Your task to perform on an android device: turn on bluetooth scan Image 0: 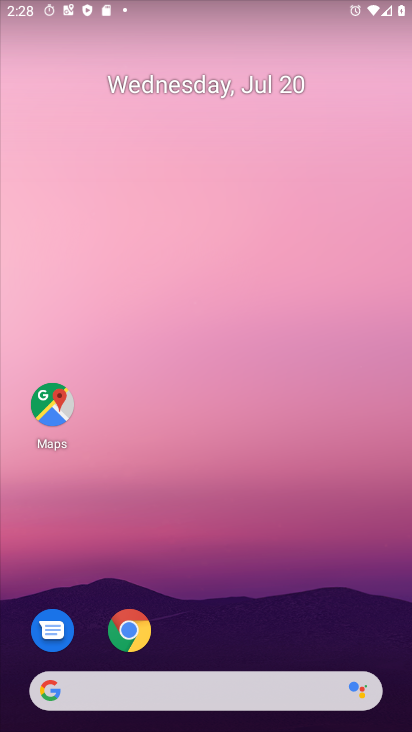
Step 0: press home button
Your task to perform on an android device: turn on bluetooth scan Image 1: 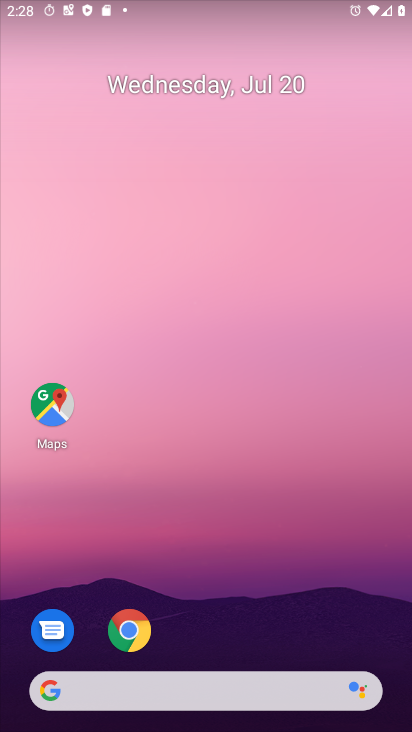
Step 1: drag from (205, 697) to (341, 106)
Your task to perform on an android device: turn on bluetooth scan Image 2: 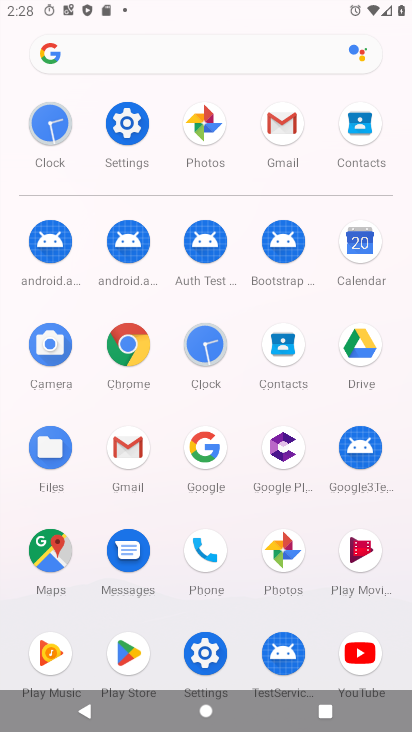
Step 2: click (128, 138)
Your task to perform on an android device: turn on bluetooth scan Image 3: 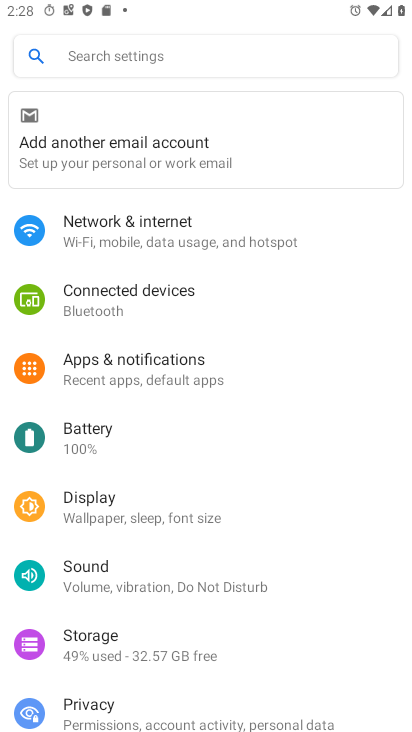
Step 3: drag from (312, 572) to (368, 225)
Your task to perform on an android device: turn on bluetooth scan Image 4: 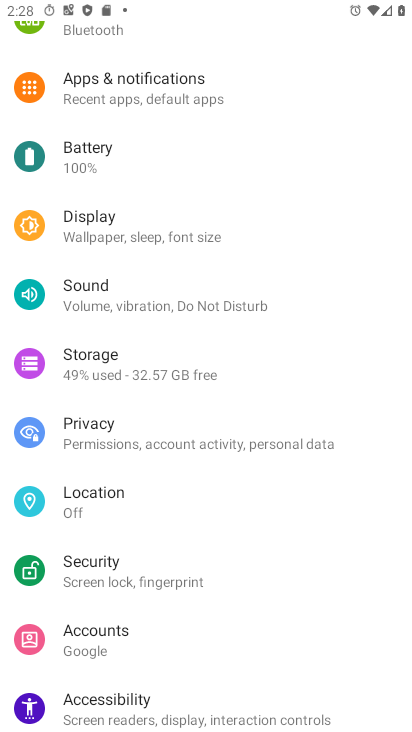
Step 4: click (122, 508)
Your task to perform on an android device: turn on bluetooth scan Image 5: 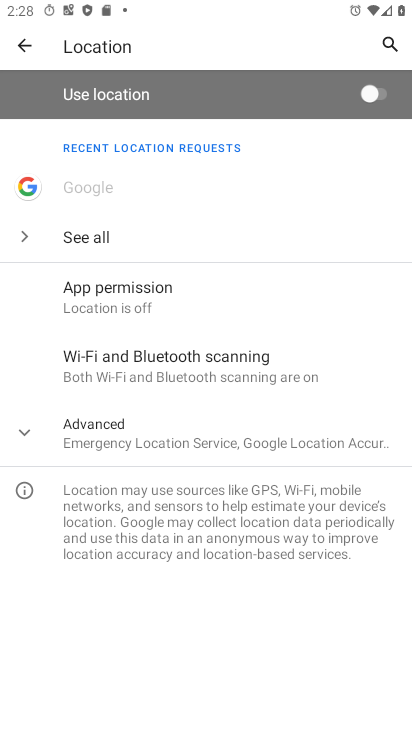
Step 5: click (208, 364)
Your task to perform on an android device: turn on bluetooth scan Image 6: 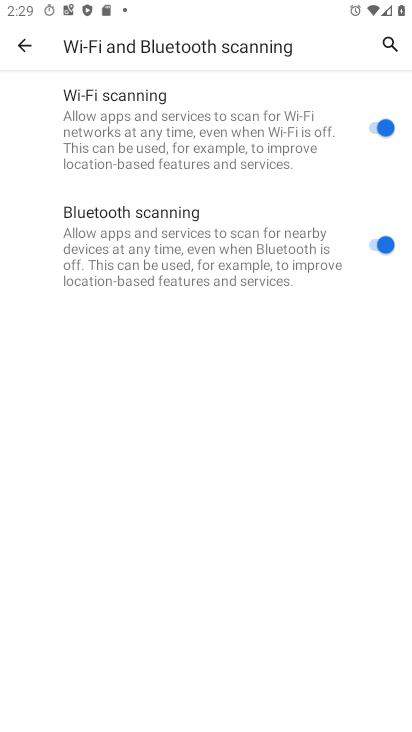
Step 6: task complete